Your task to perform on an android device: Go to notification settings Image 0: 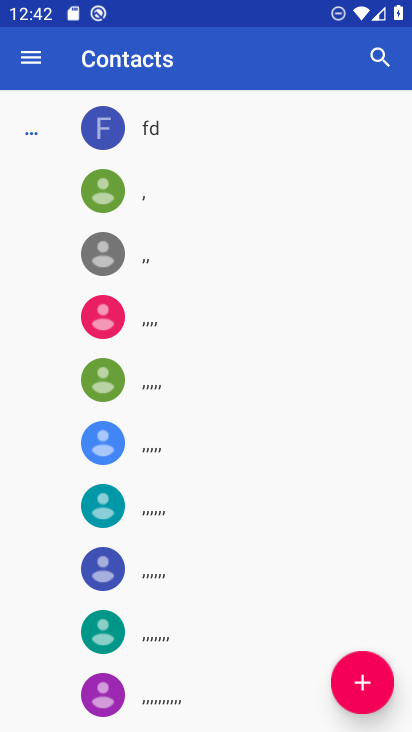
Step 0: press home button
Your task to perform on an android device: Go to notification settings Image 1: 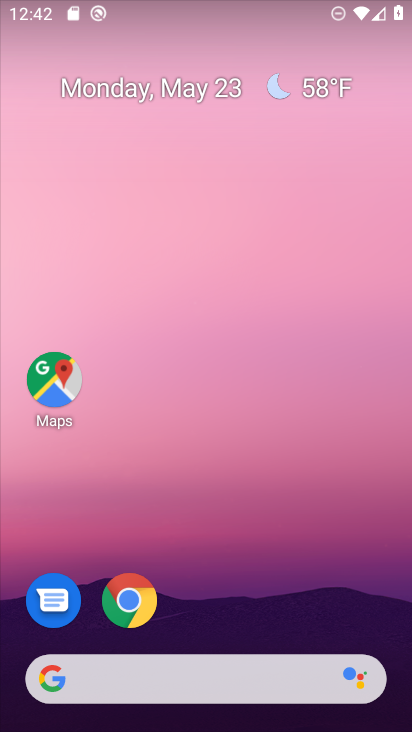
Step 1: drag from (287, 574) to (245, 67)
Your task to perform on an android device: Go to notification settings Image 2: 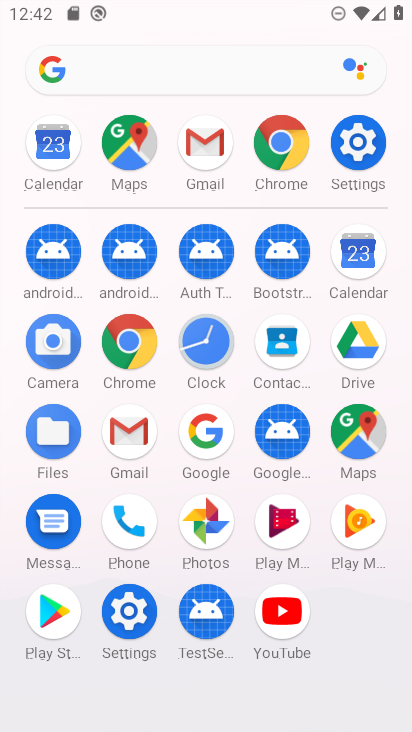
Step 2: click (341, 154)
Your task to perform on an android device: Go to notification settings Image 3: 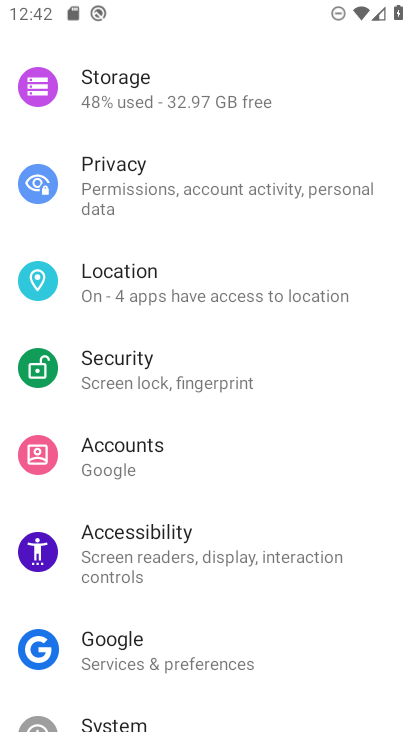
Step 3: drag from (277, 205) to (349, 596)
Your task to perform on an android device: Go to notification settings Image 4: 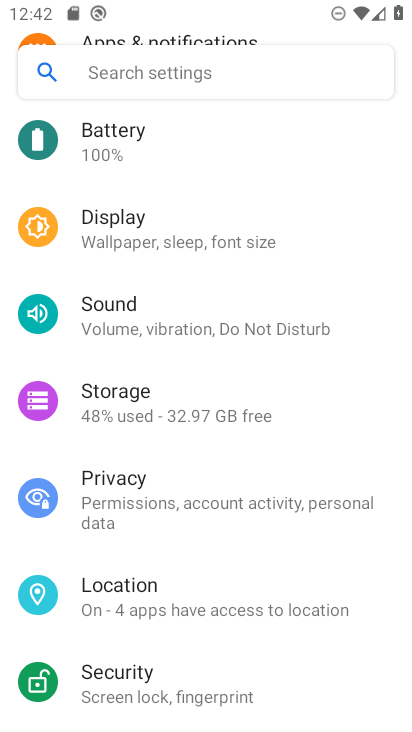
Step 4: drag from (280, 253) to (406, 680)
Your task to perform on an android device: Go to notification settings Image 5: 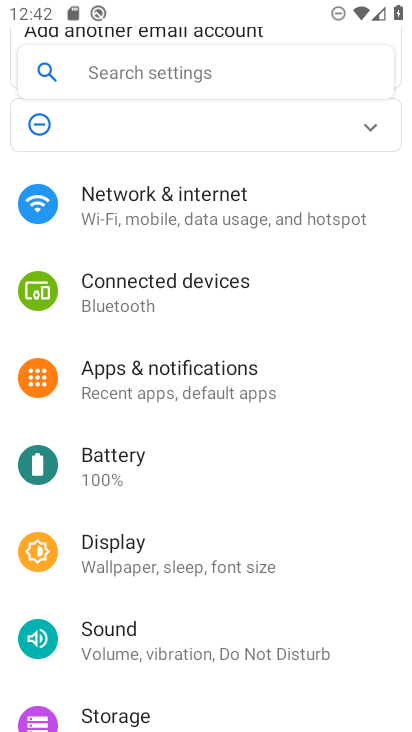
Step 5: click (220, 350)
Your task to perform on an android device: Go to notification settings Image 6: 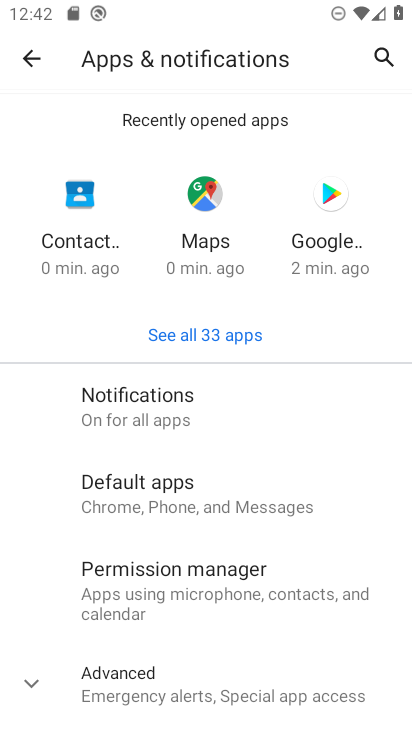
Step 6: click (156, 403)
Your task to perform on an android device: Go to notification settings Image 7: 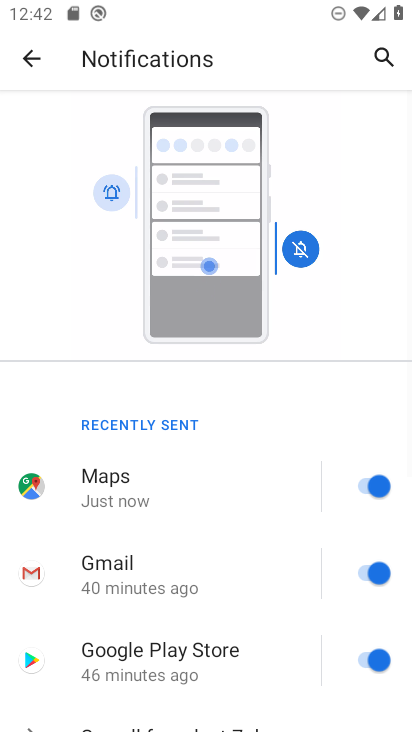
Step 7: task complete